Your task to perform on an android device: Open Maps and search for coffee Image 0: 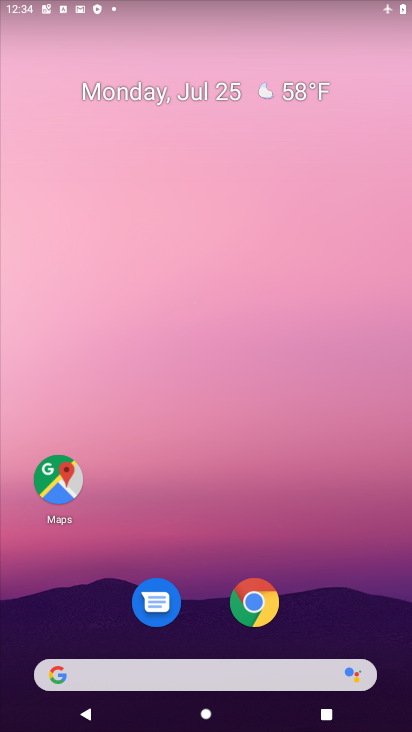
Step 0: click (45, 491)
Your task to perform on an android device: Open Maps and search for coffee Image 1: 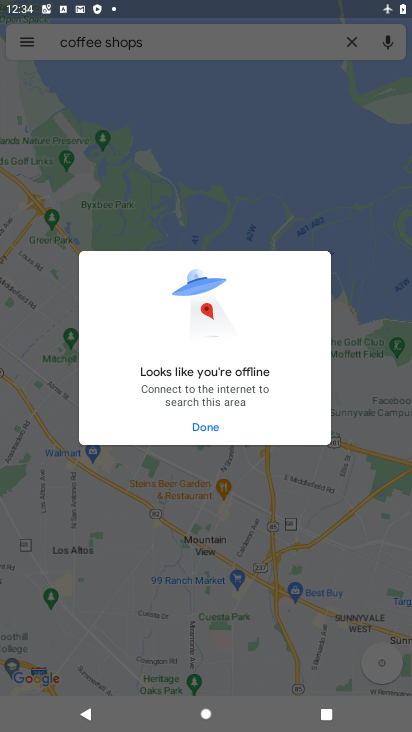
Step 1: task complete